Your task to perform on an android device: turn off improve location accuracy Image 0: 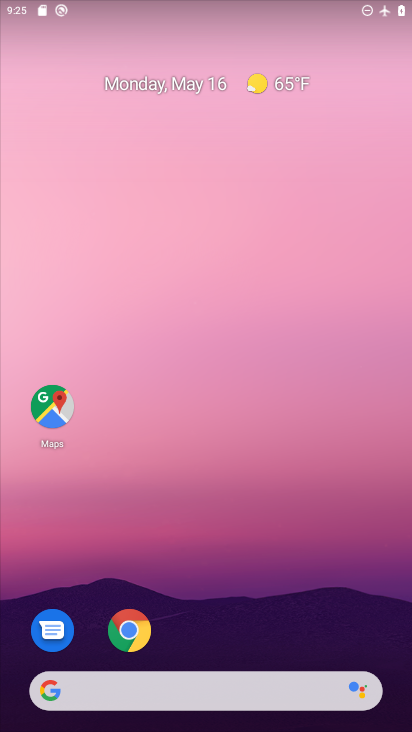
Step 0: drag from (208, 545) to (186, 235)
Your task to perform on an android device: turn off improve location accuracy Image 1: 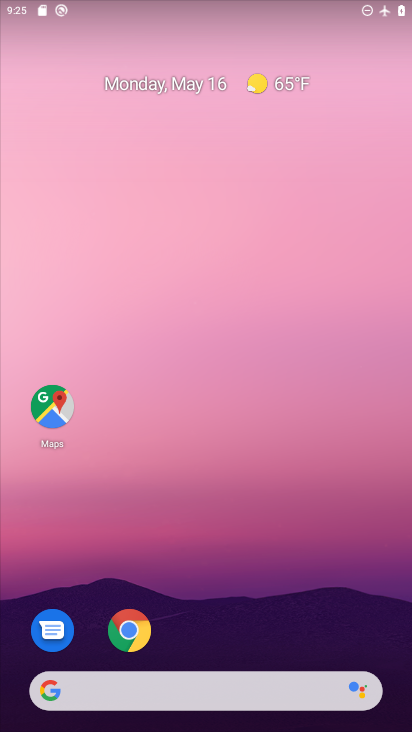
Step 1: drag from (211, 652) to (212, 225)
Your task to perform on an android device: turn off improve location accuracy Image 2: 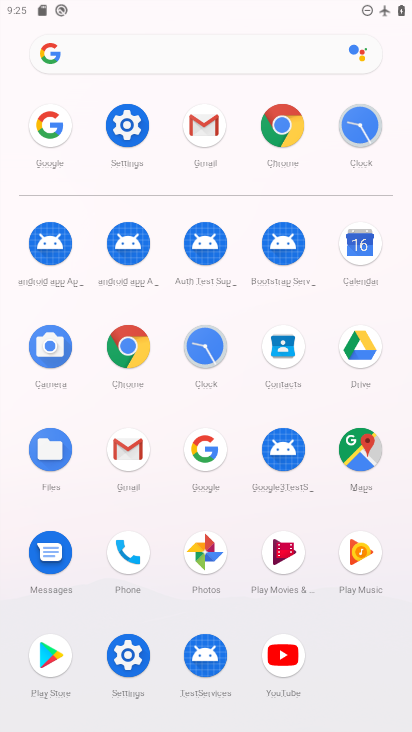
Step 2: click (137, 140)
Your task to perform on an android device: turn off improve location accuracy Image 3: 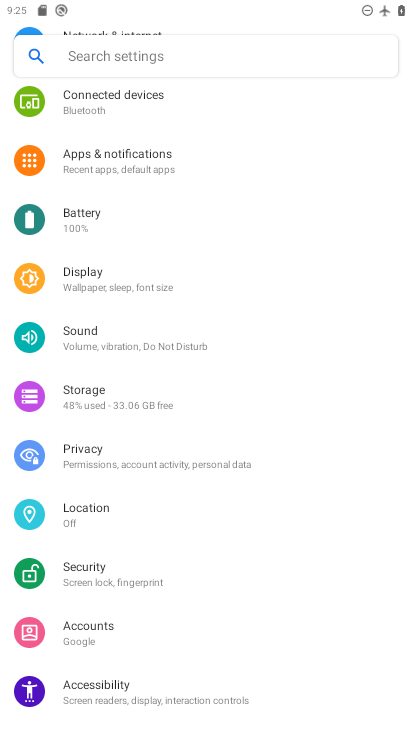
Step 3: click (89, 516)
Your task to perform on an android device: turn off improve location accuracy Image 4: 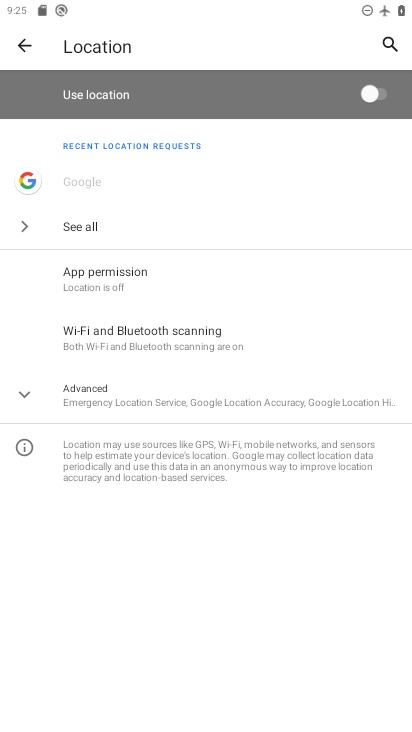
Step 4: click (139, 398)
Your task to perform on an android device: turn off improve location accuracy Image 5: 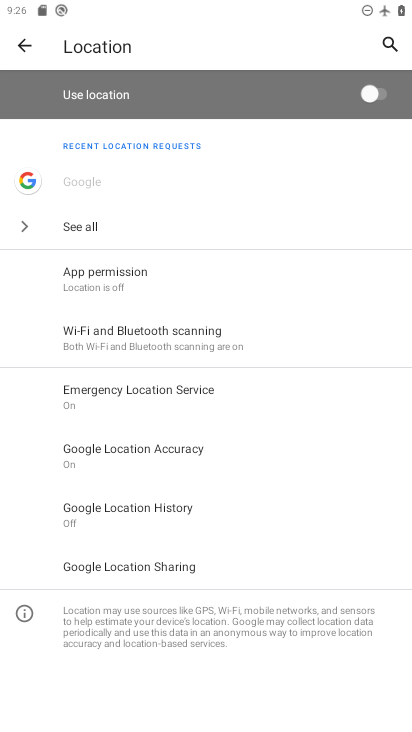
Step 5: click (172, 452)
Your task to perform on an android device: turn off improve location accuracy Image 6: 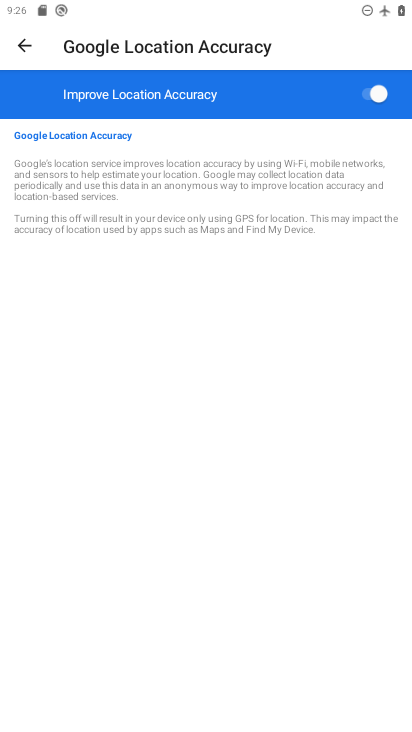
Step 6: click (364, 100)
Your task to perform on an android device: turn off improve location accuracy Image 7: 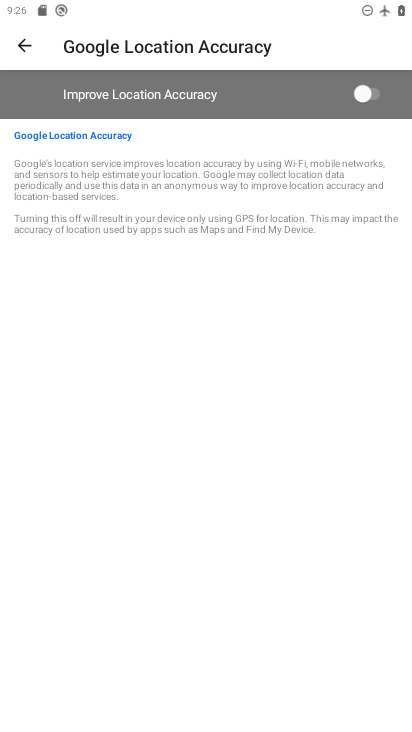
Step 7: task complete